Your task to perform on an android device: Turn off the flashlight Image 0: 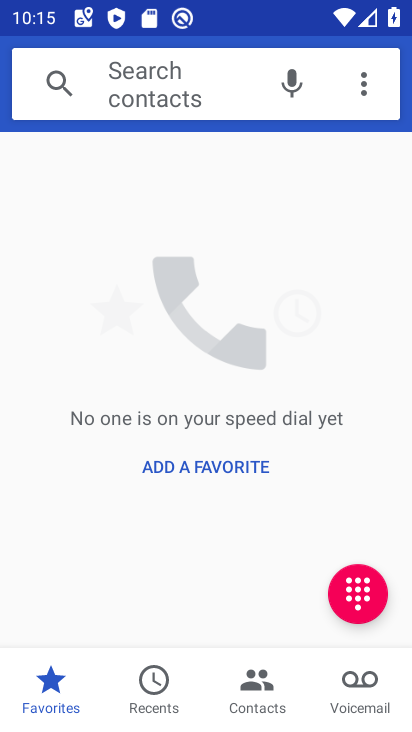
Step 0: press back button
Your task to perform on an android device: Turn off the flashlight Image 1: 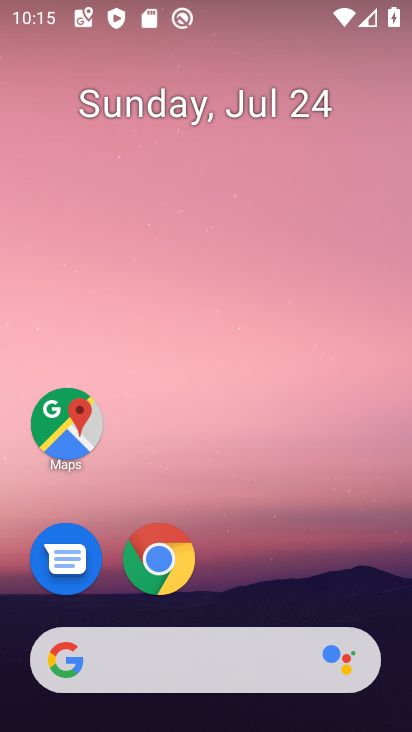
Step 1: drag from (241, 586) to (271, 0)
Your task to perform on an android device: Turn off the flashlight Image 2: 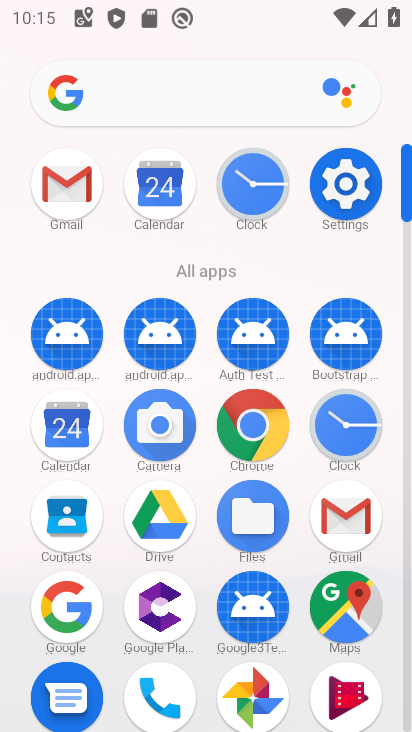
Step 2: click (341, 179)
Your task to perform on an android device: Turn off the flashlight Image 3: 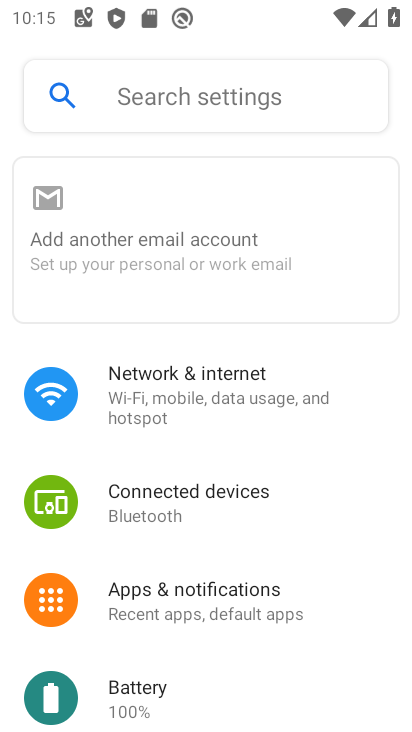
Step 3: click (172, 111)
Your task to perform on an android device: Turn off the flashlight Image 4: 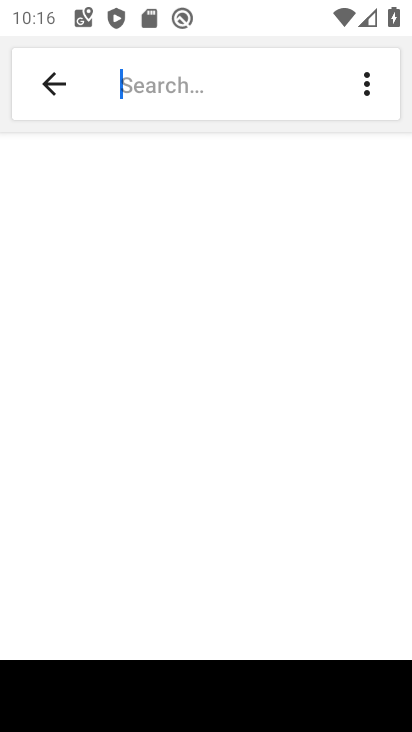
Step 4: type "flashlight"
Your task to perform on an android device: Turn off the flashlight Image 5: 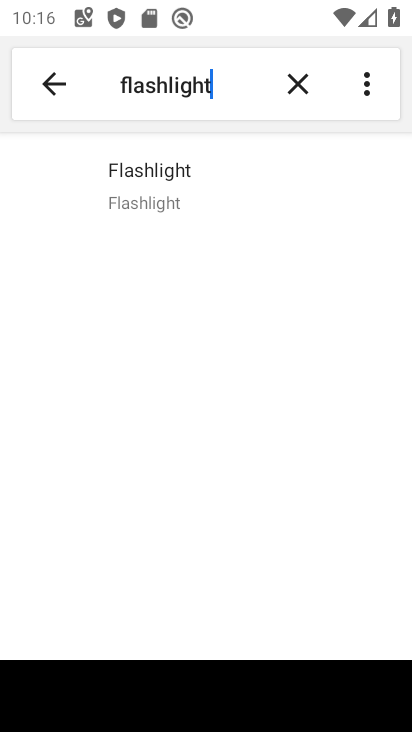
Step 5: click (152, 189)
Your task to perform on an android device: Turn off the flashlight Image 6: 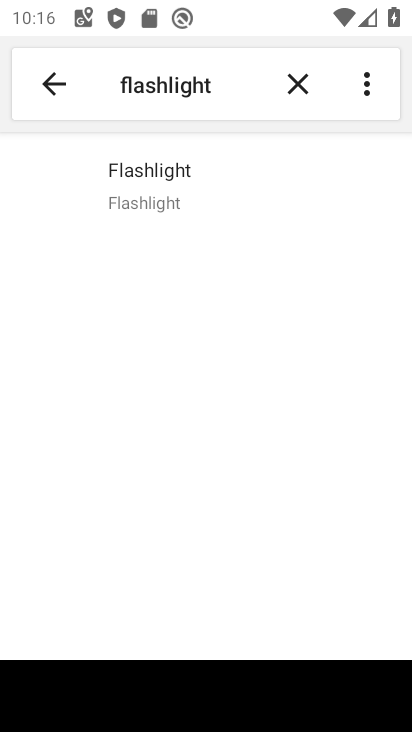
Step 6: click (126, 176)
Your task to perform on an android device: Turn off the flashlight Image 7: 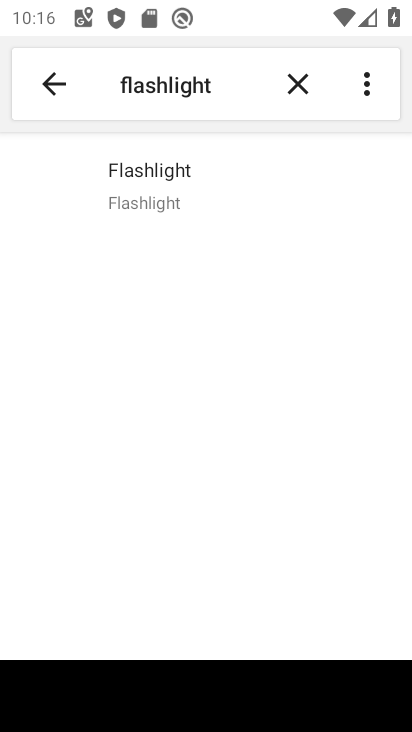
Step 7: task complete